Your task to perform on an android device: toggle data saver in the chrome app Image 0: 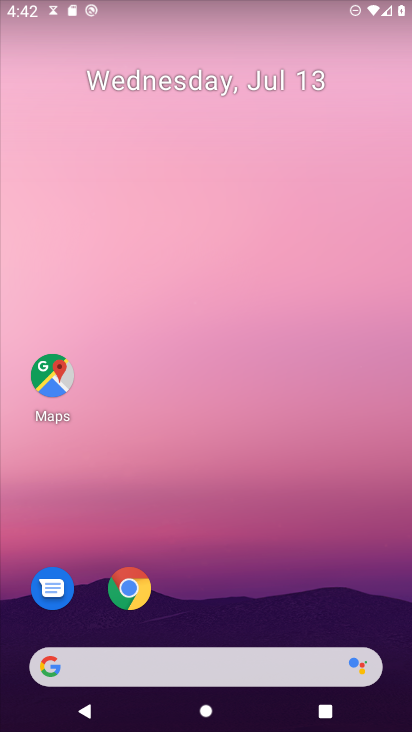
Step 0: click (187, 207)
Your task to perform on an android device: toggle data saver in the chrome app Image 1: 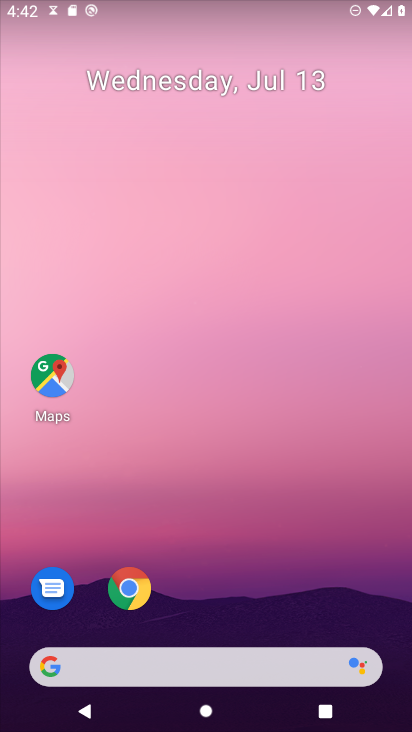
Step 1: drag from (237, 590) to (151, 92)
Your task to perform on an android device: toggle data saver in the chrome app Image 2: 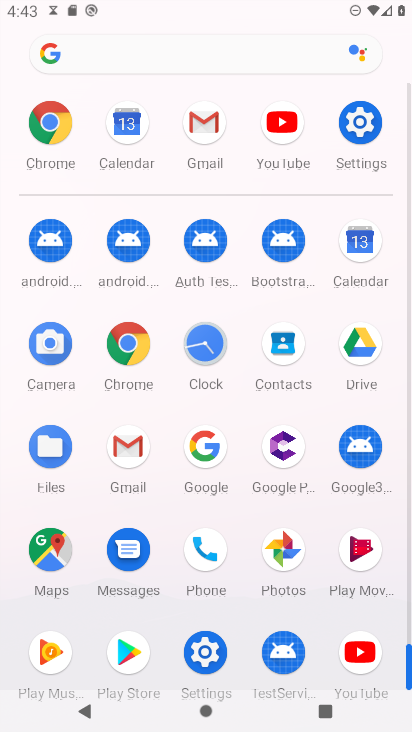
Step 2: click (60, 120)
Your task to perform on an android device: toggle data saver in the chrome app Image 3: 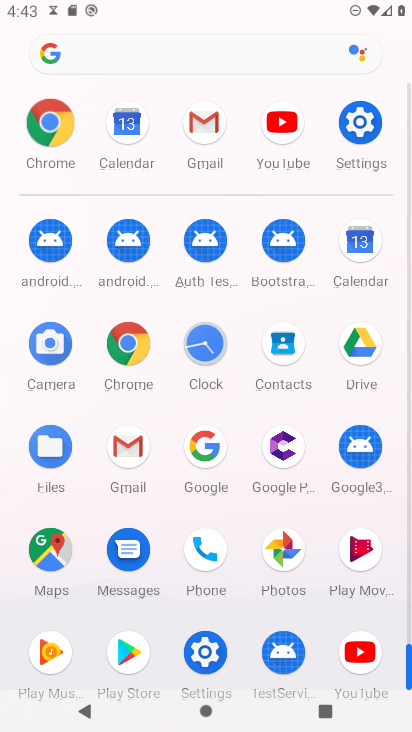
Step 3: click (60, 120)
Your task to perform on an android device: toggle data saver in the chrome app Image 4: 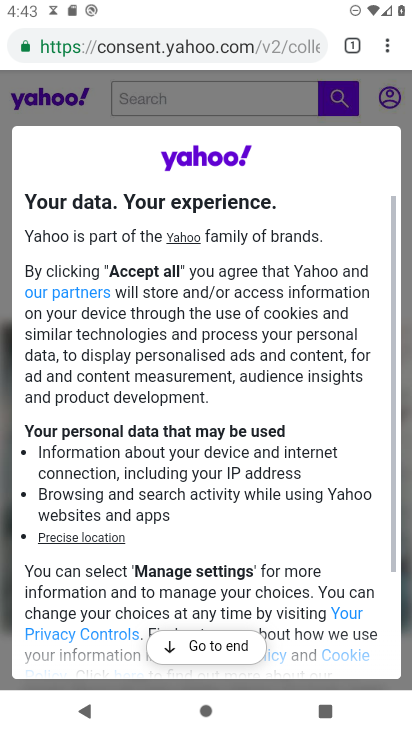
Step 4: click (59, 121)
Your task to perform on an android device: toggle data saver in the chrome app Image 5: 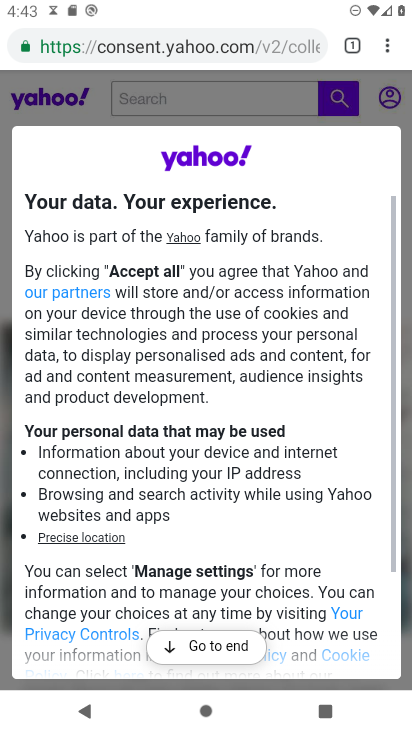
Step 5: drag from (378, 46) to (236, 554)
Your task to perform on an android device: toggle data saver in the chrome app Image 6: 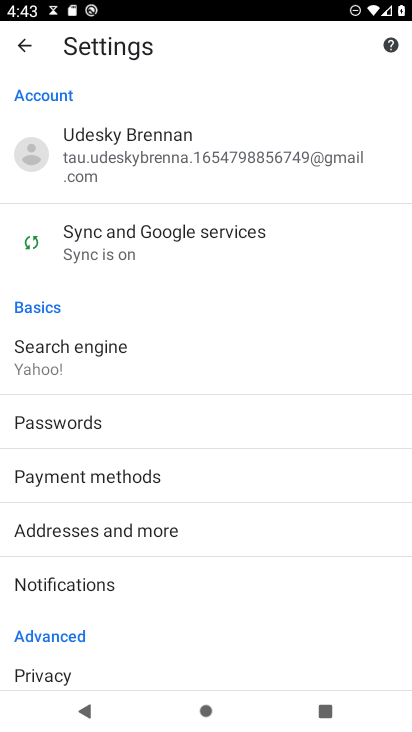
Step 6: drag from (180, 549) to (78, 92)
Your task to perform on an android device: toggle data saver in the chrome app Image 7: 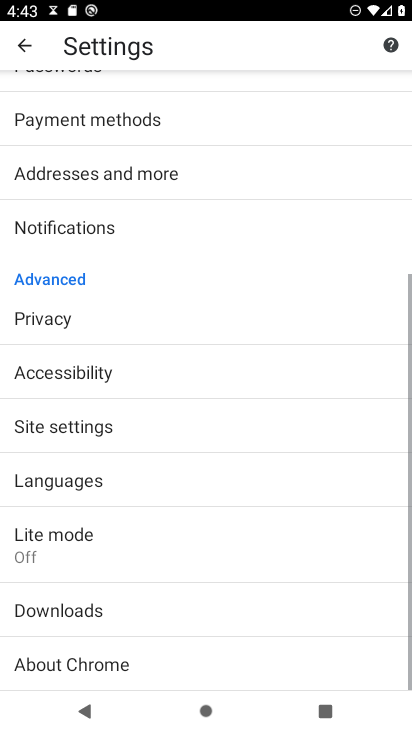
Step 7: drag from (147, 549) to (77, 186)
Your task to perform on an android device: toggle data saver in the chrome app Image 8: 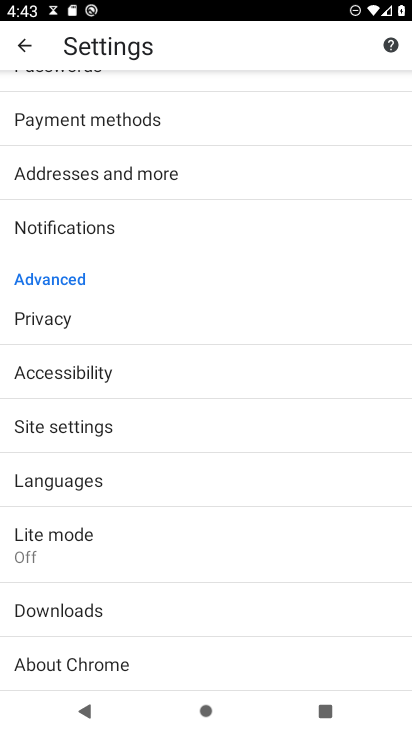
Step 8: click (54, 535)
Your task to perform on an android device: toggle data saver in the chrome app Image 9: 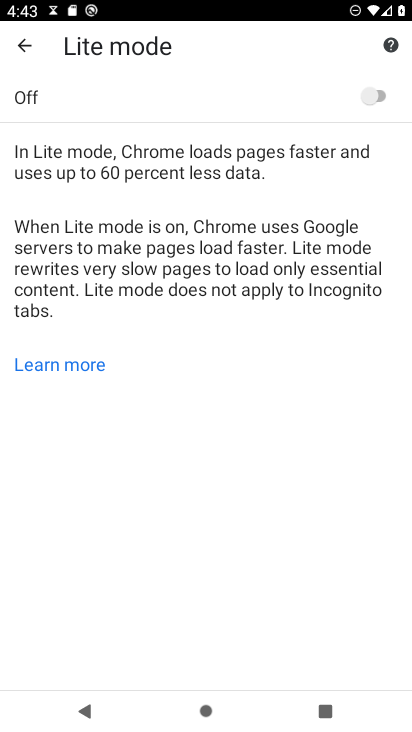
Step 9: click (371, 95)
Your task to perform on an android device: toggle data saver in the chrome app Image 10: 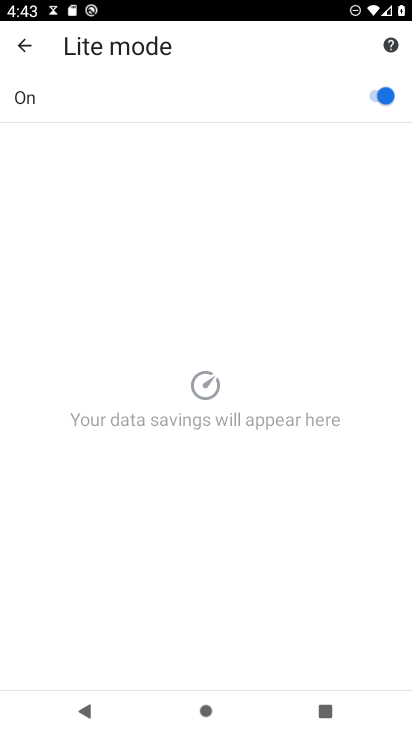
Step 10: task complete